Your task to perform on an android device: check out phone information Image 0: 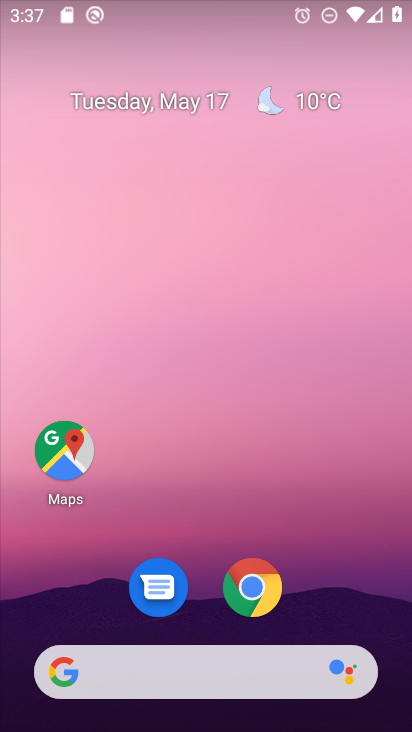
Step 0: drag from (334, 599) to (254, 29)
Your task to perform on an android device: check out phone information Image 1: 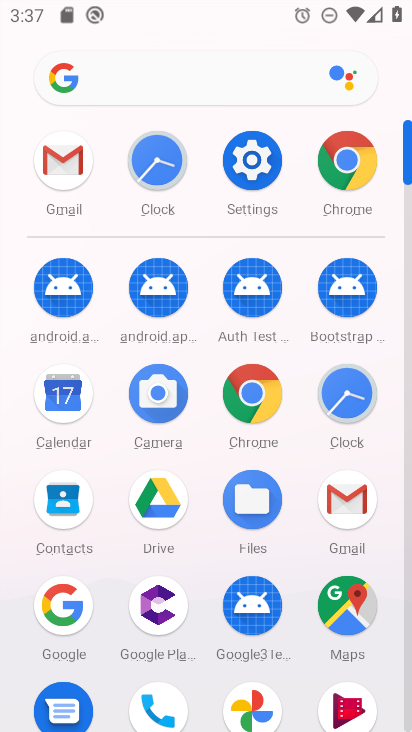
Step 1: drag from (18, 587) to (25, 315)
Your task to perform on an android device: check out phone information Image 2: 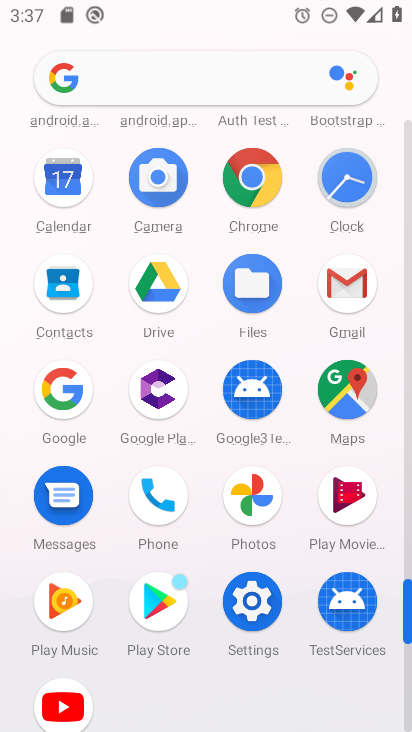
Step 2: click (249, 595)
Your task to perform on an android device: check out phone information Image 3: 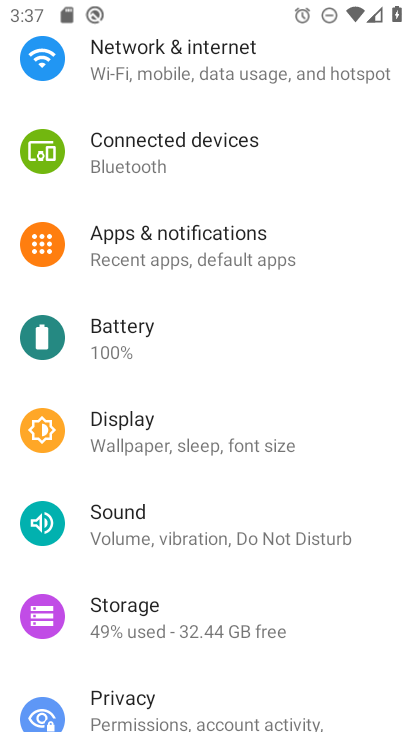
Step 3: drag from (249, 646) to (285, 129)
Your task to perform on an android device: check out phone information Image 4: 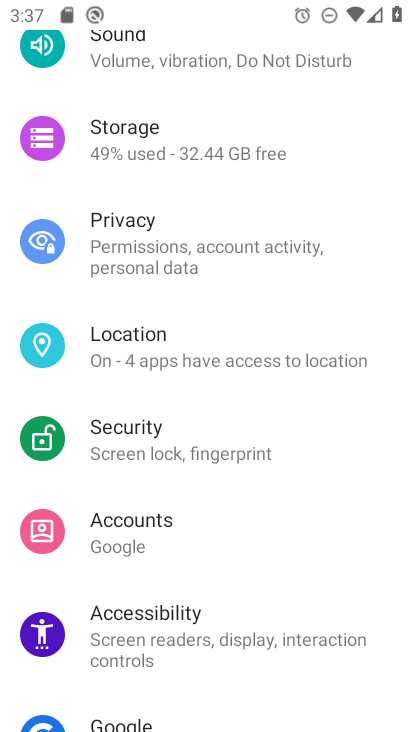
Step 4: drag from (229, 589) to (273, 179)
Your task to perform on an android device: check out phone information Image 5: 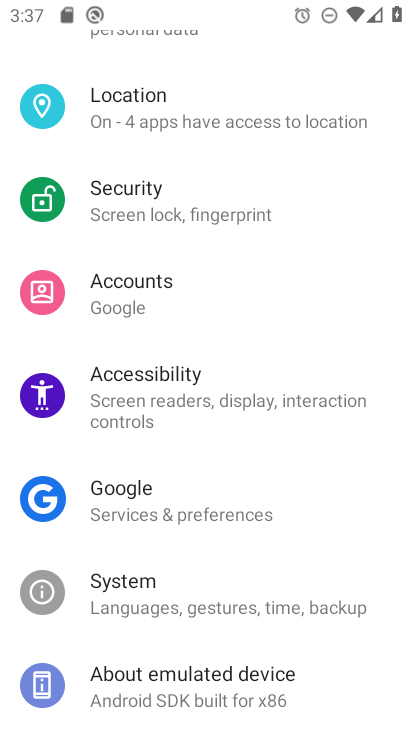
Step 5: click (192, 660)
Your task to perform on an android device: check out phone information Image 6: 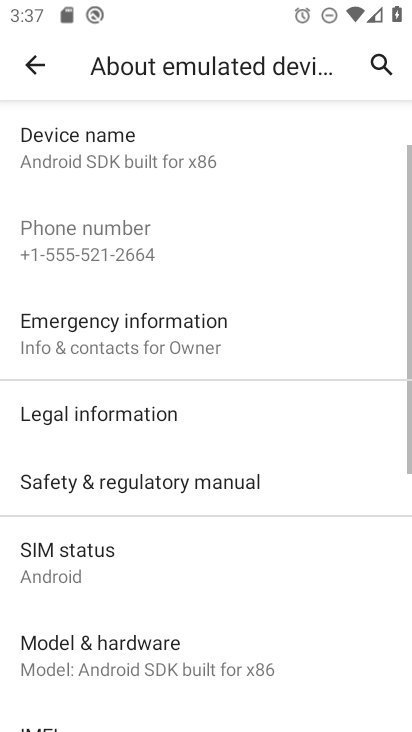
Step 6: task complete